Your task to perform on an android device: What is the recent news? Image 0: 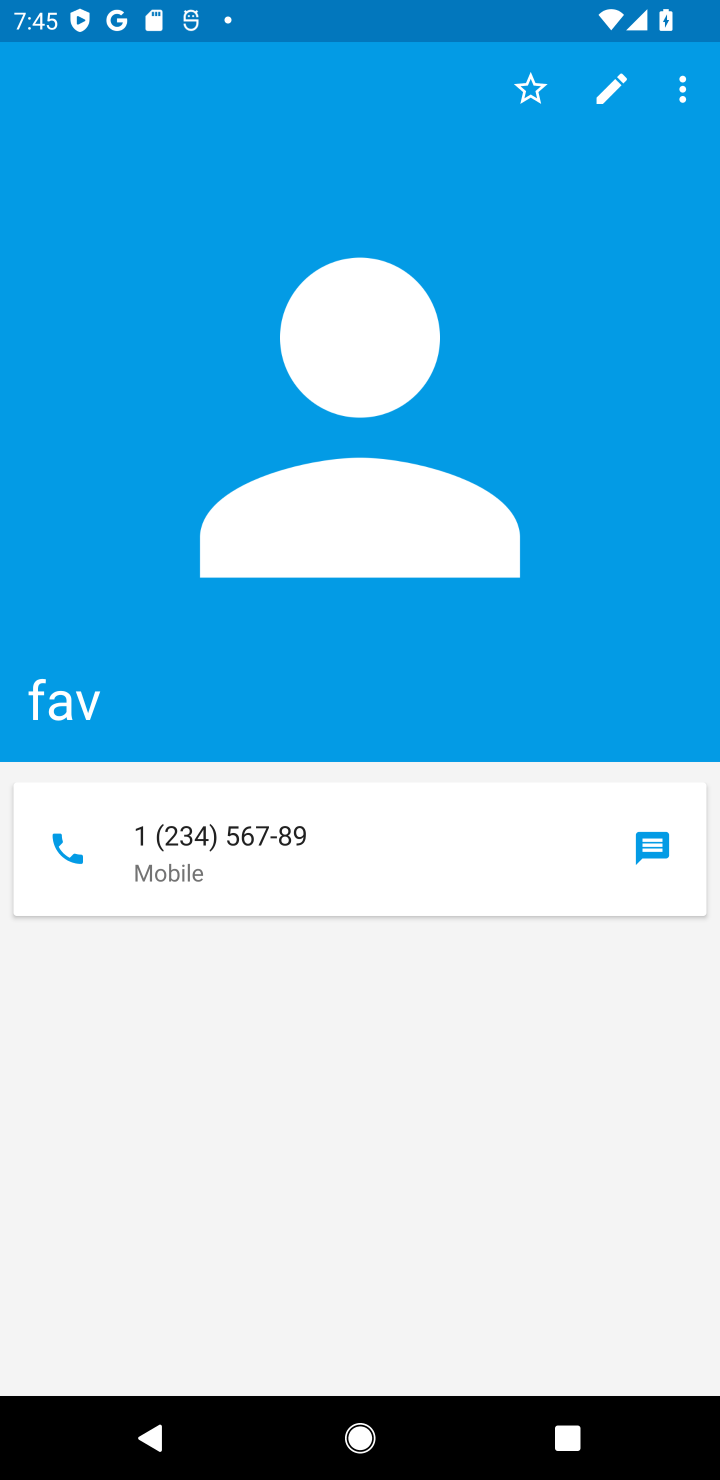
Step 0: press home button
Your task to perform on an android device: What is the recent news? Image 1: 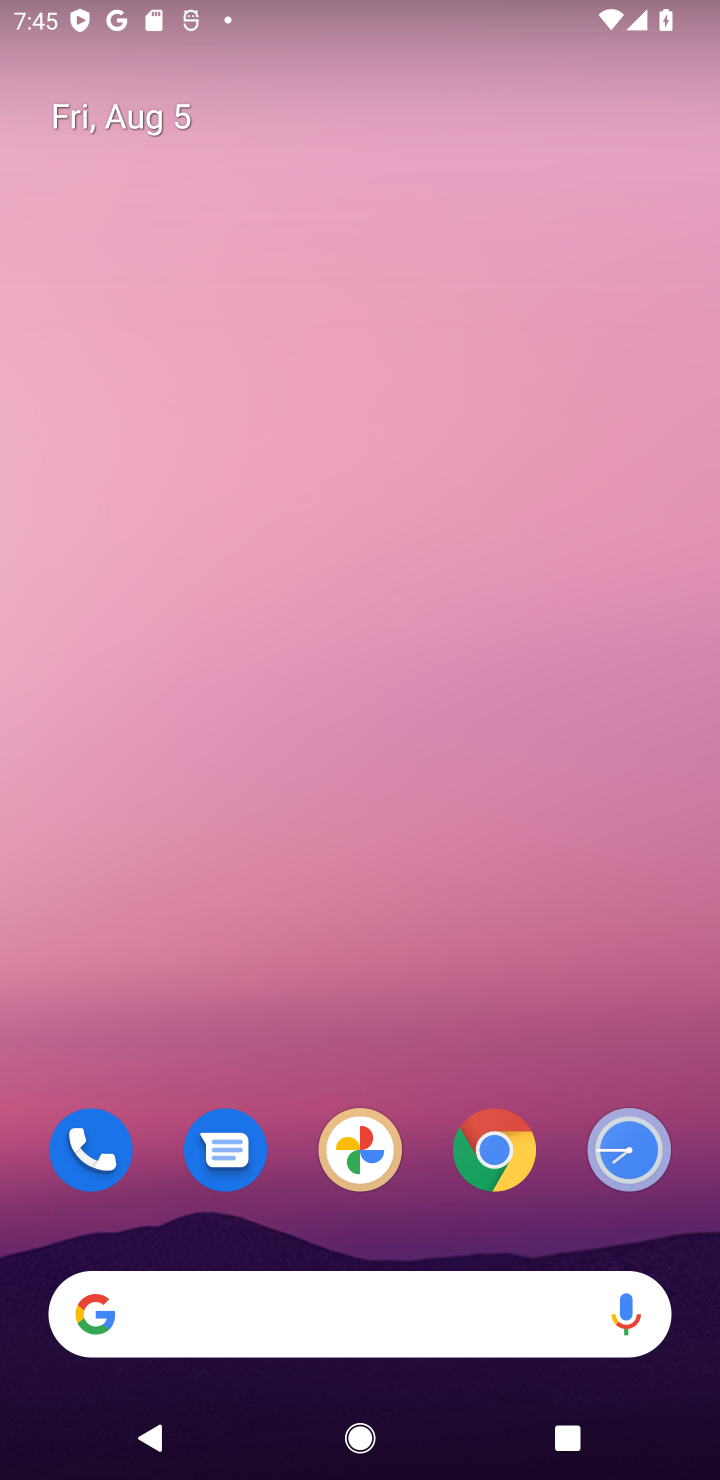
Step 1: task complete